Your task to perform on an android device: turn off notifications settings in the gmail app Image 0: 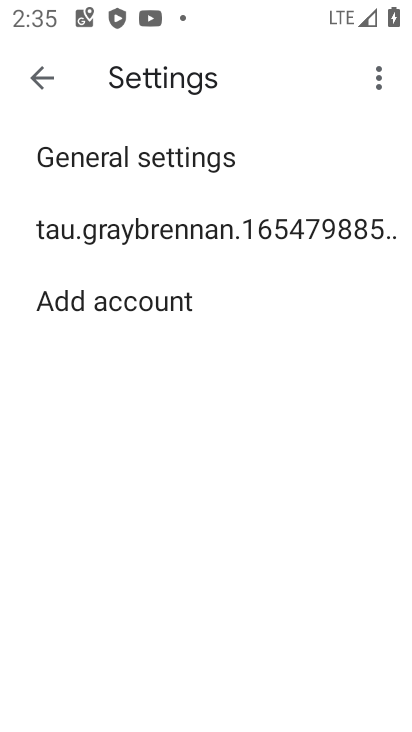
Step 0: press home button
Your task to perform on an android device: turn off notifications settings in the gmail app Image 1: 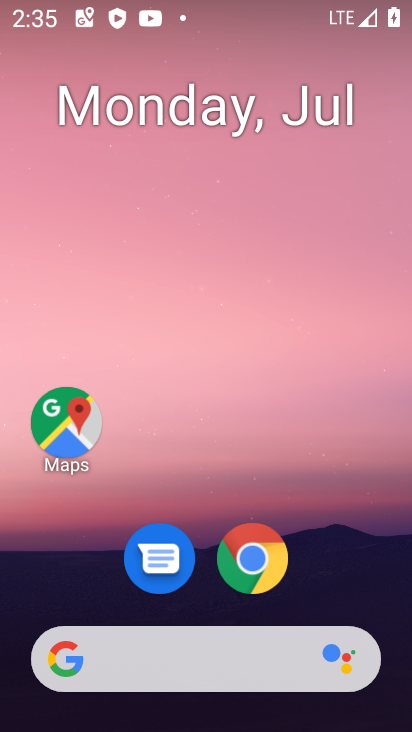
Step 1: drag from (362, 564) to (9, 725)
Your task to perform on an android device: turn off notifications settings in the gmail app Image 2: 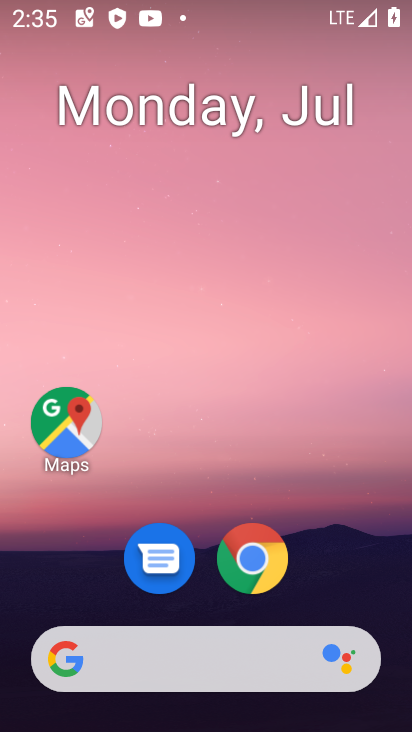
Step 2: drag from (351, 544) to (344, 61)
Your task to perform on an android device: turn off notifications settings in the gmail app Image 3: 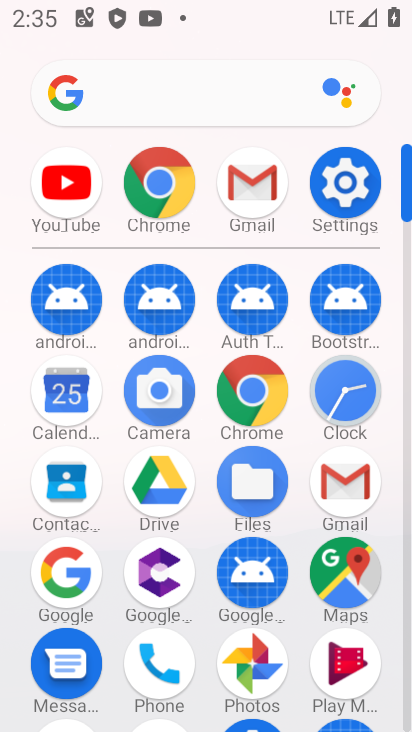
Step 3: click (355, 488)
Your task to perform on an android device: turn off notifications settings in the gmail app Image 4: 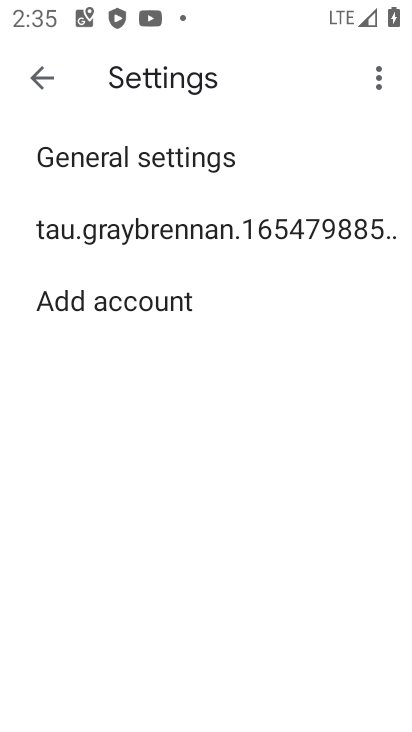
Step 4: click (273, 221)
Your task to perform on an android device: turn off notifications settings in the gmail app Image 5: 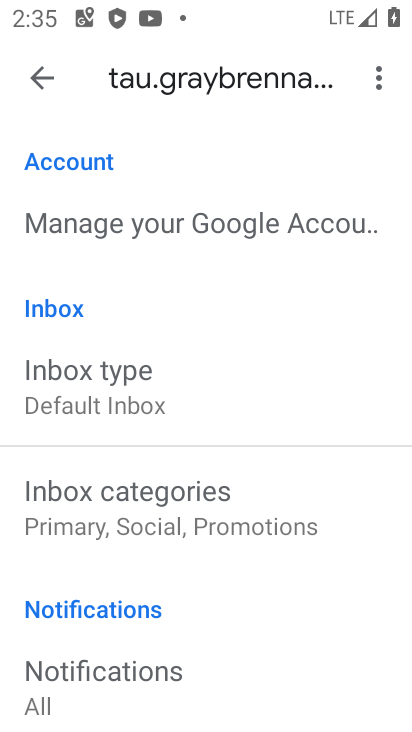
Step 5: drag from (310, 470) to (310, 374)
Your task to perform on an android device: turn off notifications settings in the gmail app Image 6: 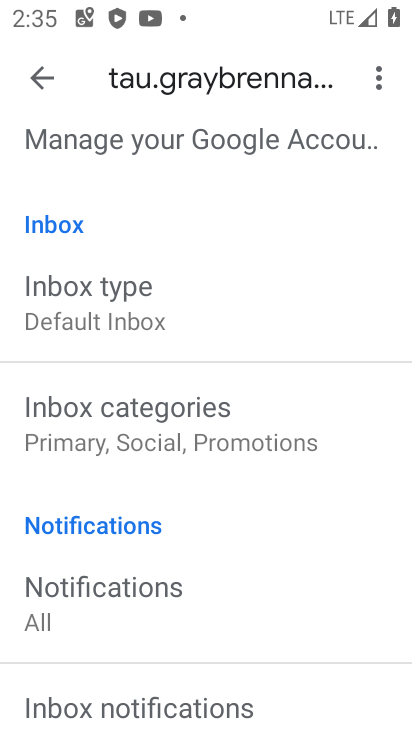
Step 6: drag from (309, 517) to (308, 390)
Your task to perform on an android device: turn off notifications settings in the gmail app Image 7: 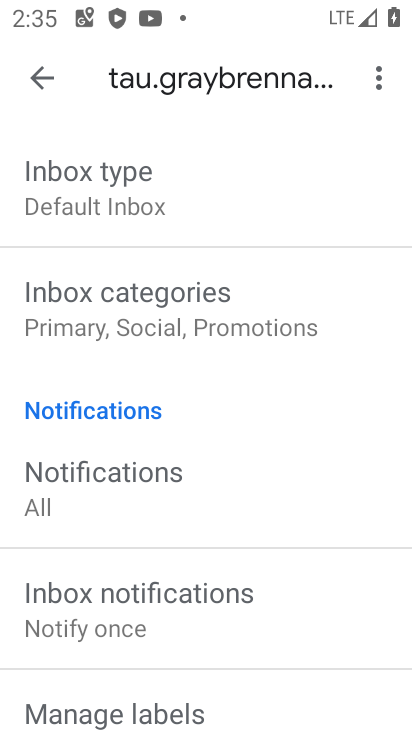
Step 7: drag from (307, 558) to (307, 446)
Your task to perform on an android device: turn off notifications settings in the gmail app Image 8: 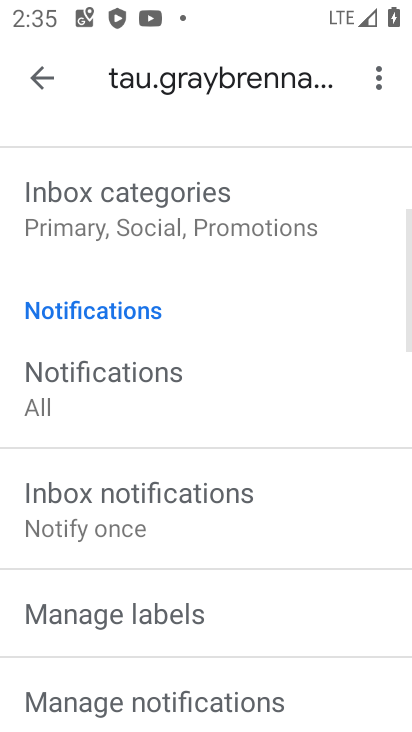
Step 8: drag from (313, 578) to (311, 477)
Your task to perform on an android device: turn off notifications settings in the gmail app Image 9: 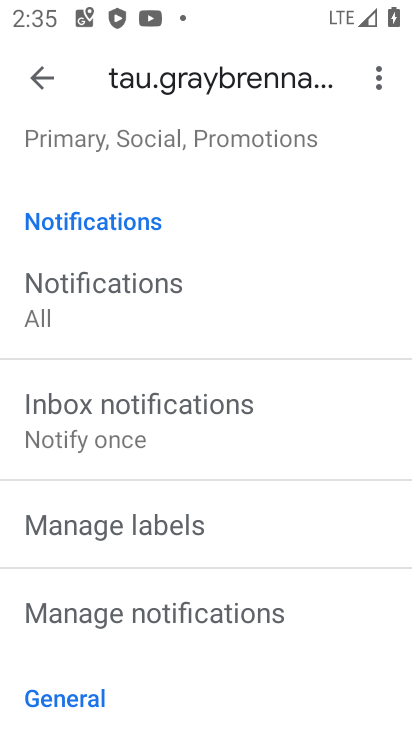
Step 9: drag from (330, 621) to (331, 520)
Your task to perform on an android device: turn off notifications settings in the gmail app Image 10: 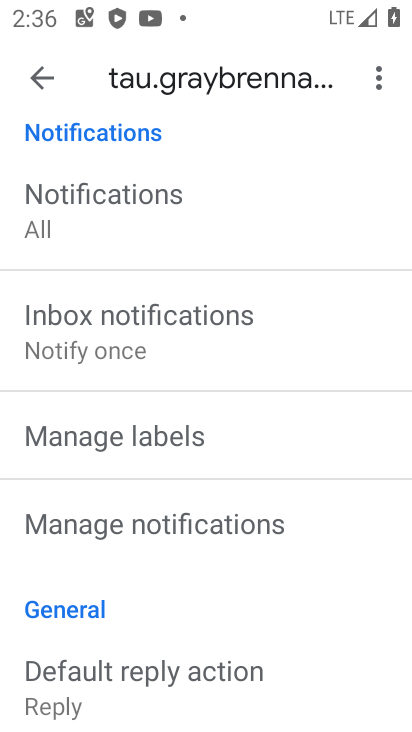
Step 10: drag from (324, 581) to (324, 438)
Your task to perform on an android device: turn off notifications settings in the gmail app Image 11: 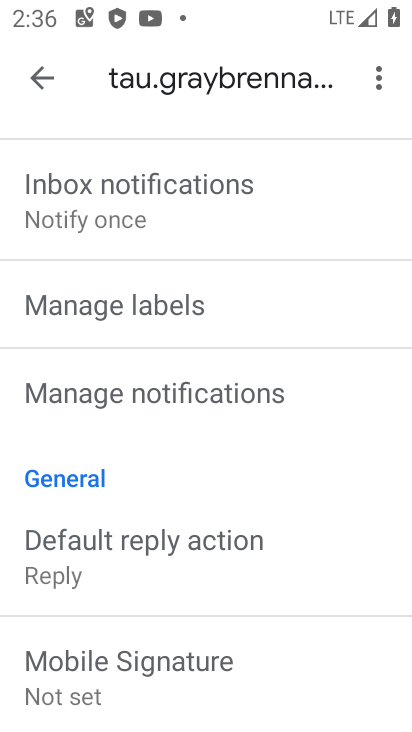
Step 11: click (298, 398)
Your task to perform on an android device: turn off notifications settings in the gmail app Image 12: 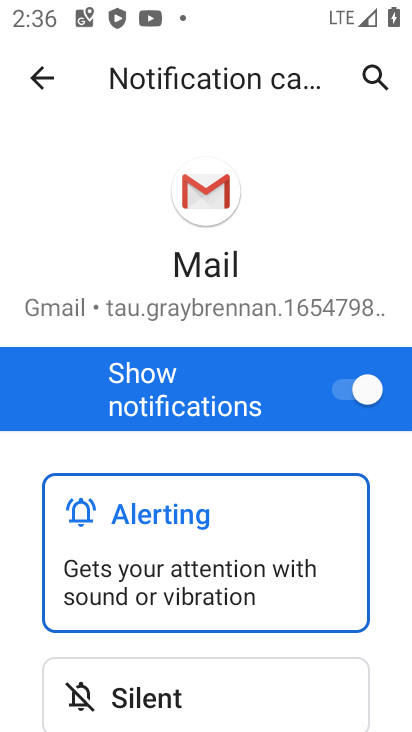
Step 12: click (363, 393)
Your task to perform on an android device: turn off notifications settings in the gmail app Image 13: 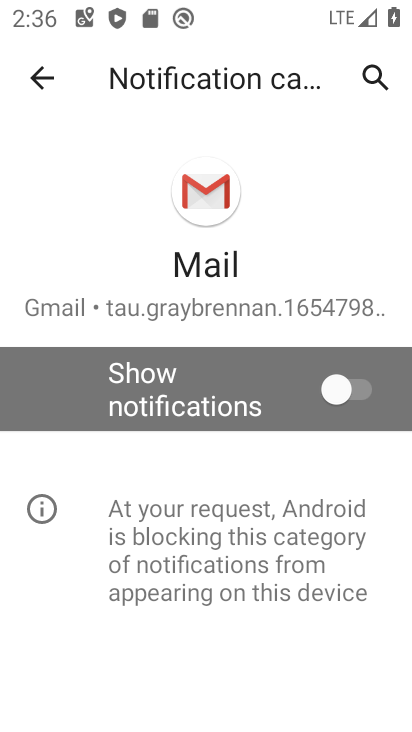
Step 13: task complete